Your task to perform on an android device: What's the weather? Image 0: 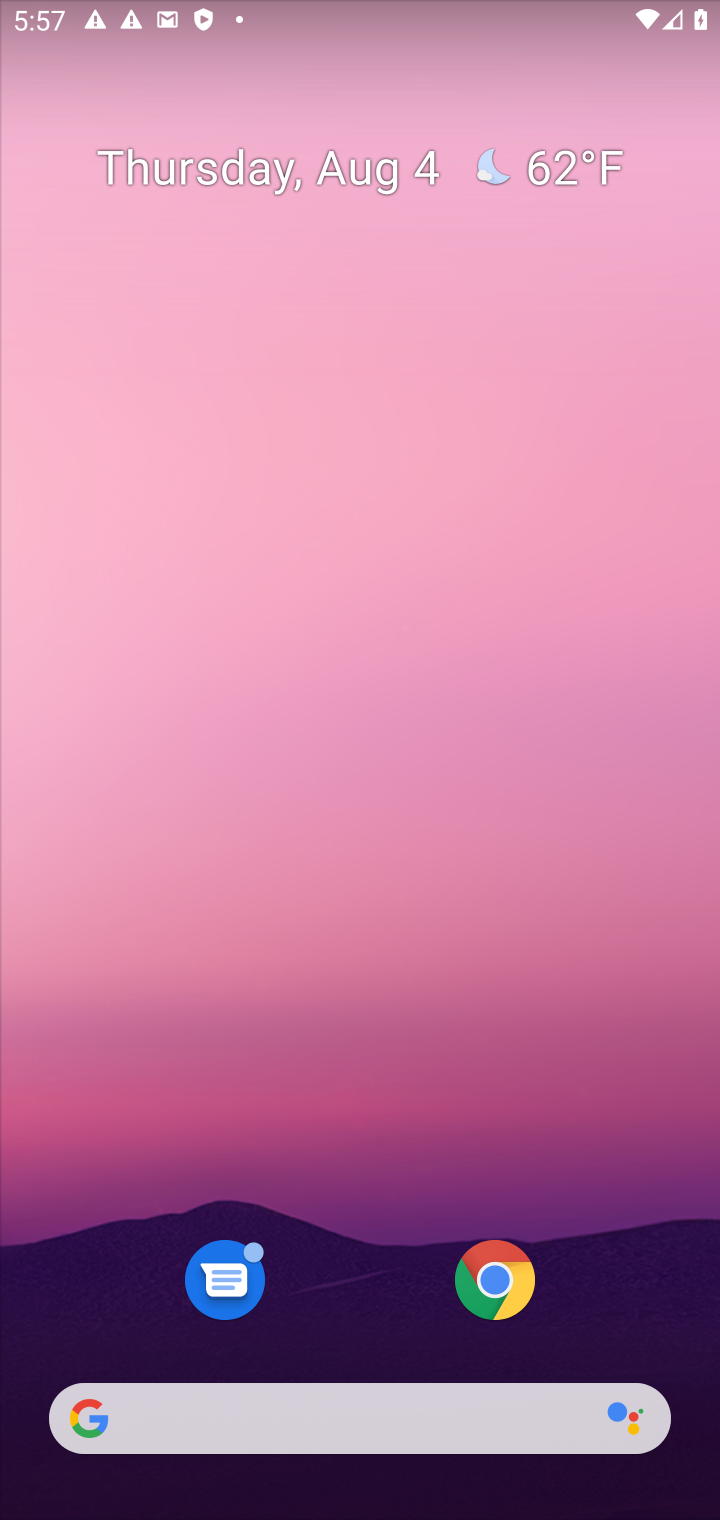
Step 0: press back button
Your task to perform on an android device: What's the weather? Image 1: 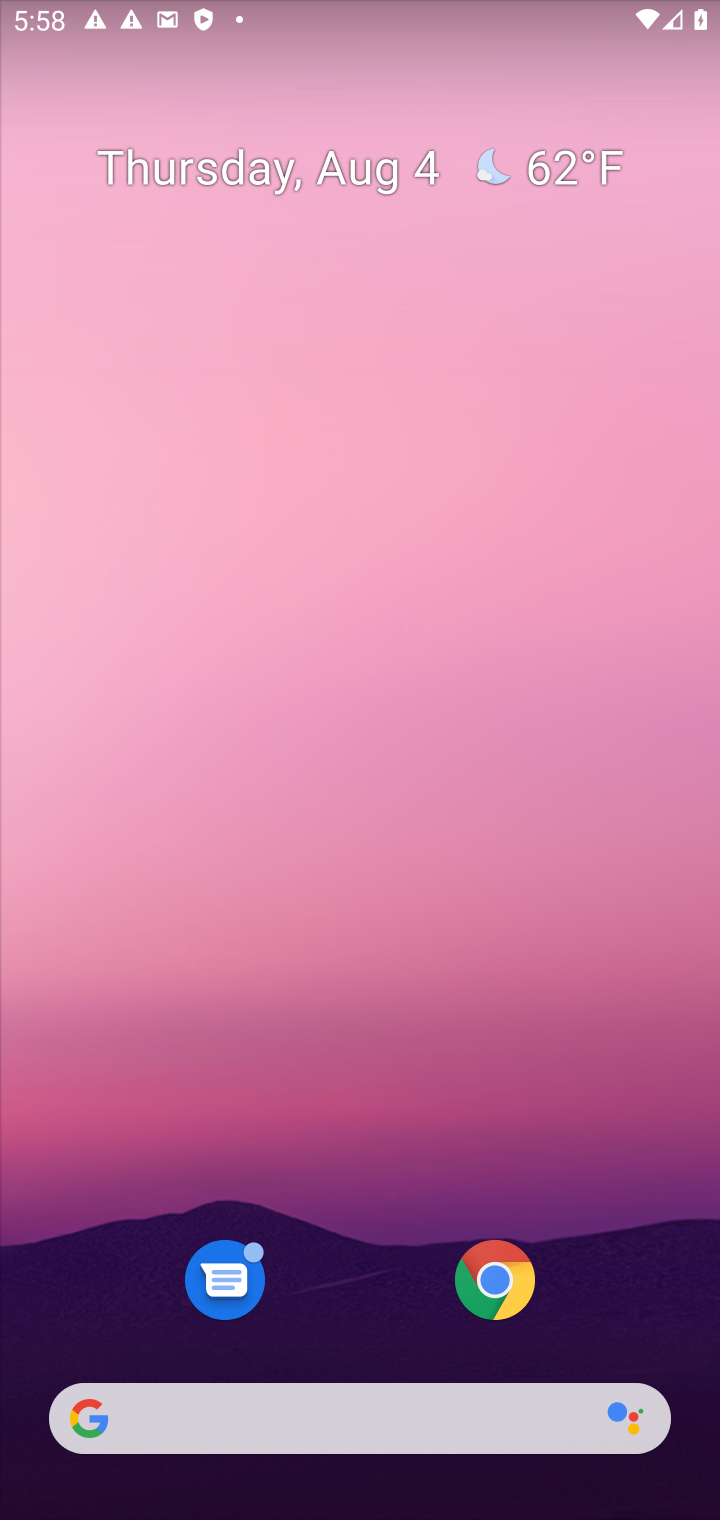
Step 1: click (301, 1421)
Your task to perform on an android device: What's the weather? Image 2: 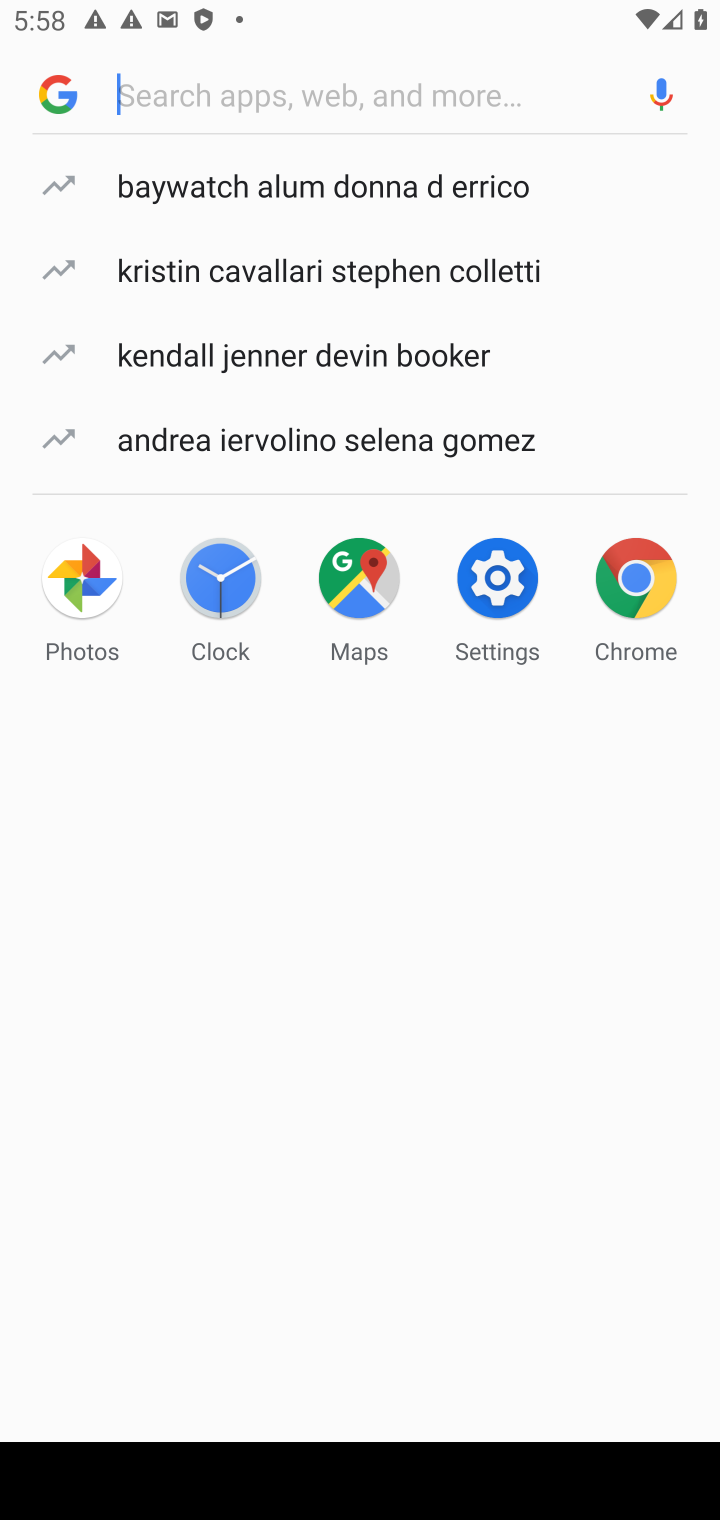
Step 2: type "wheather"
Your task to perform on an android device: What's the weather? Image 3: 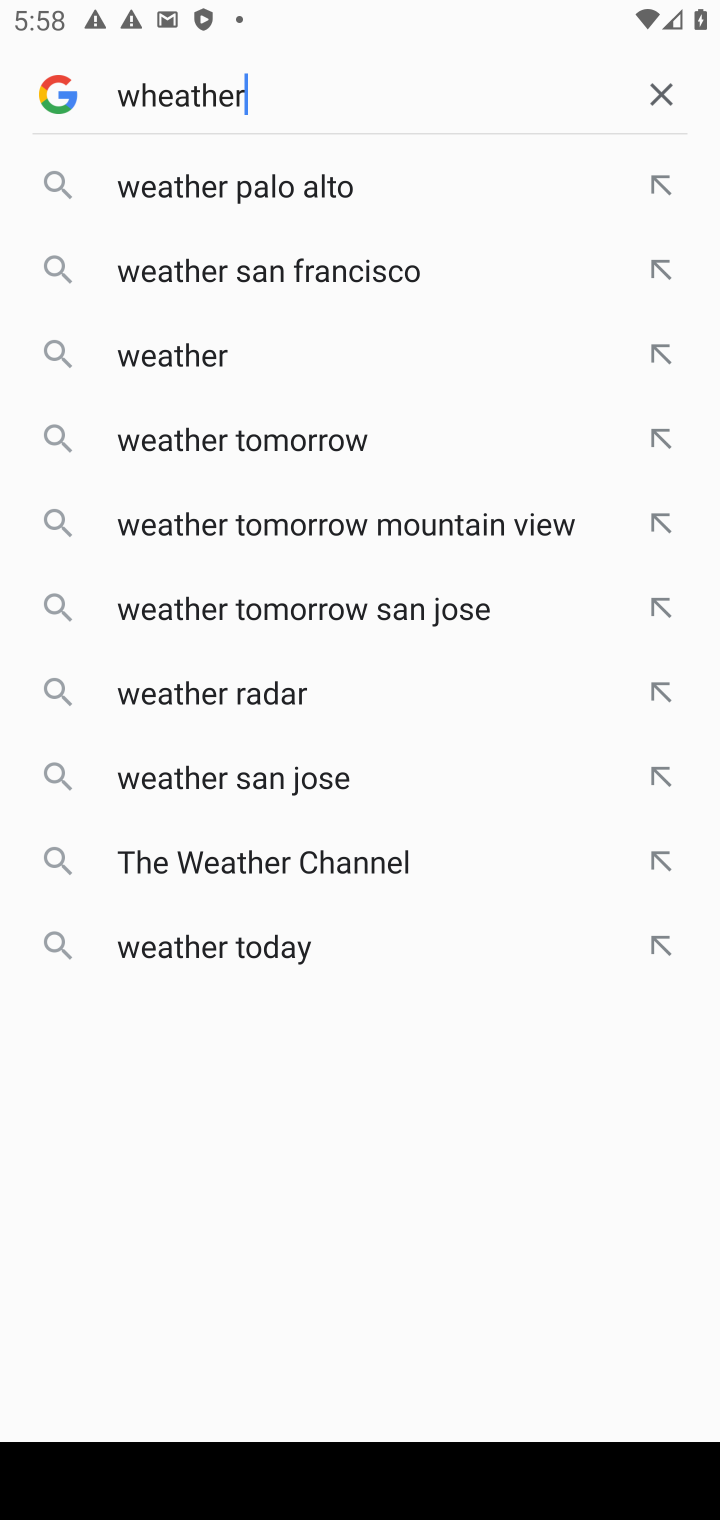
Step 3: click (392, 101)
Your task to perform on an android device: What's the weather? Image 4: 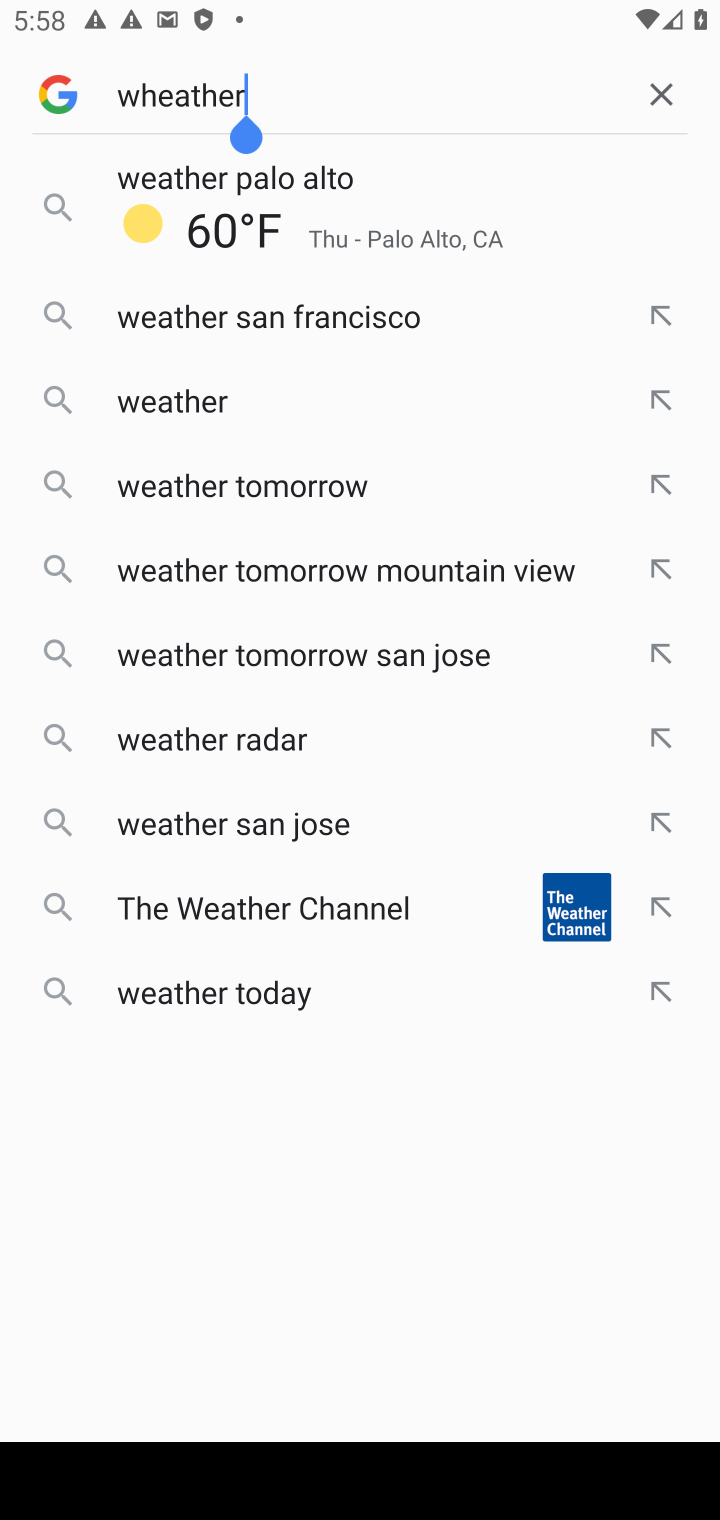
Step 4: click (311, 180)
Your task to perform on an android device: What's the weather? Image 5: 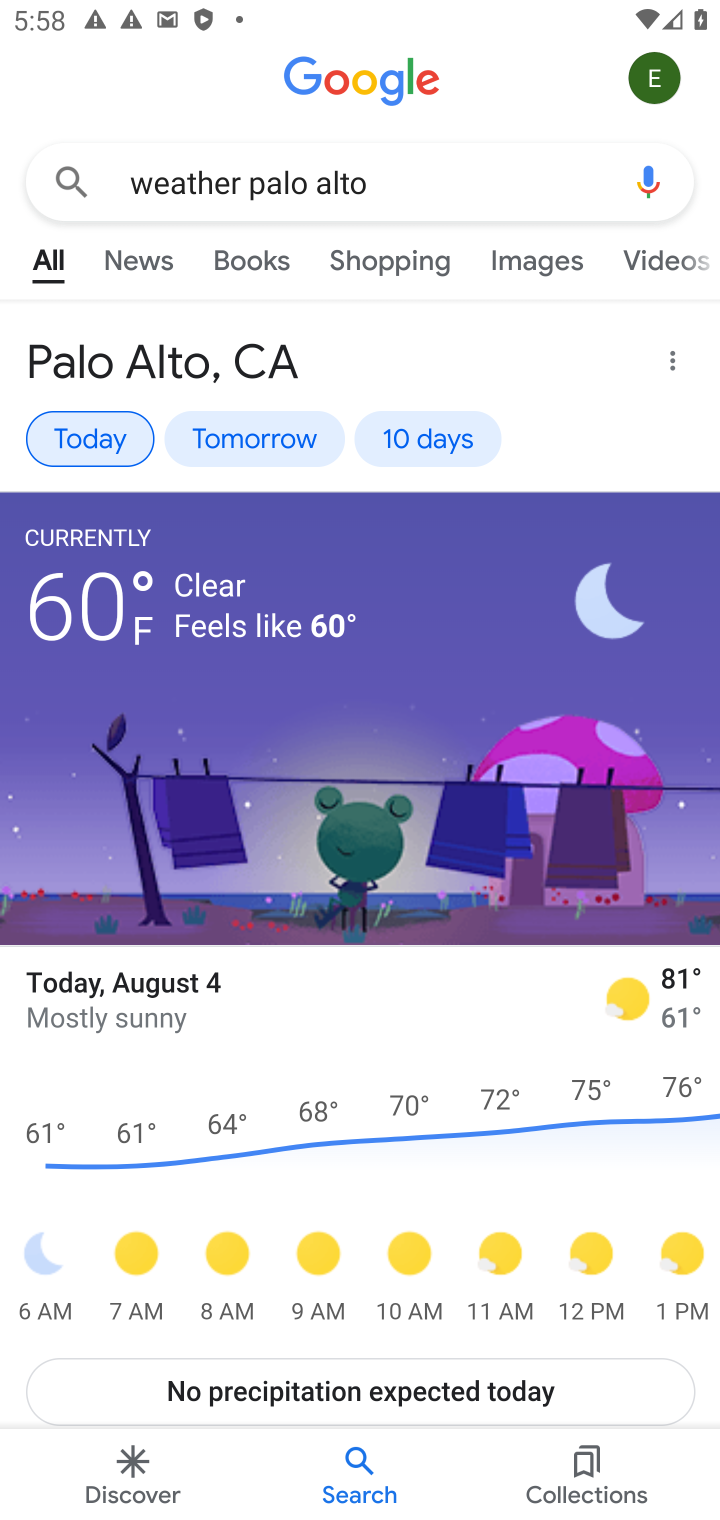
Step 5: task complete